Your task to perform on an android device: Open Amazon Image 0: 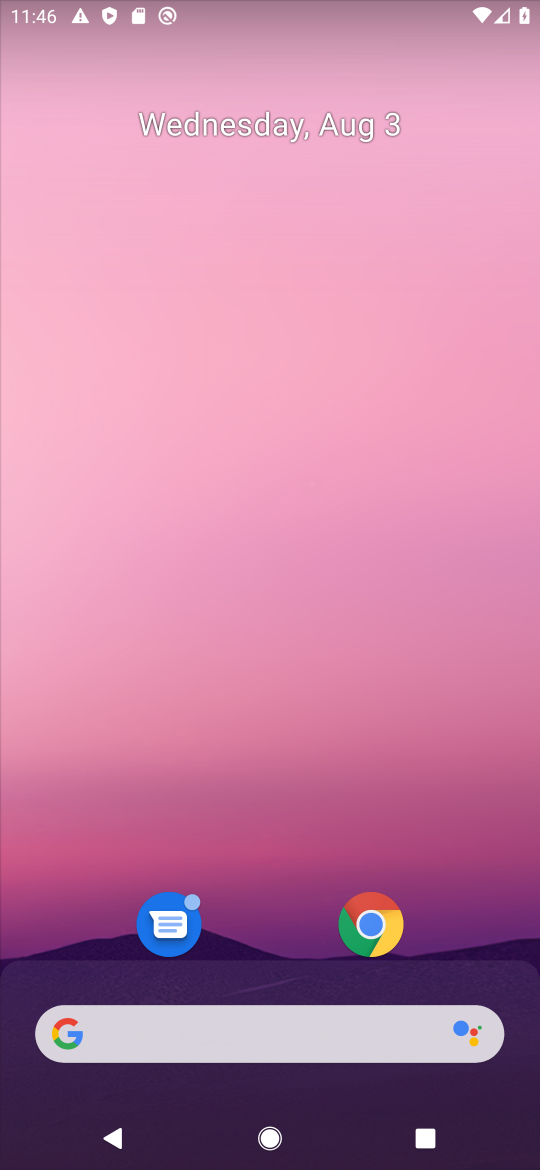
Step 0: click (381, 914)
Your task to perform on an android device: Open Amazon Image 1: 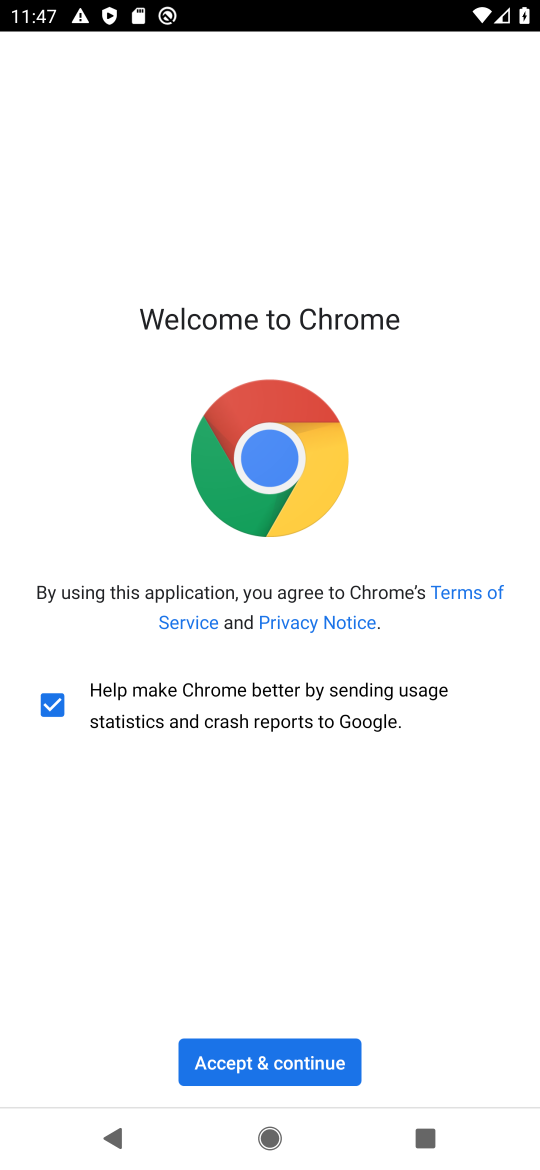
Step 1: click (285, 1062)
Your task to perform on an android device: Open Amazon Image 2: 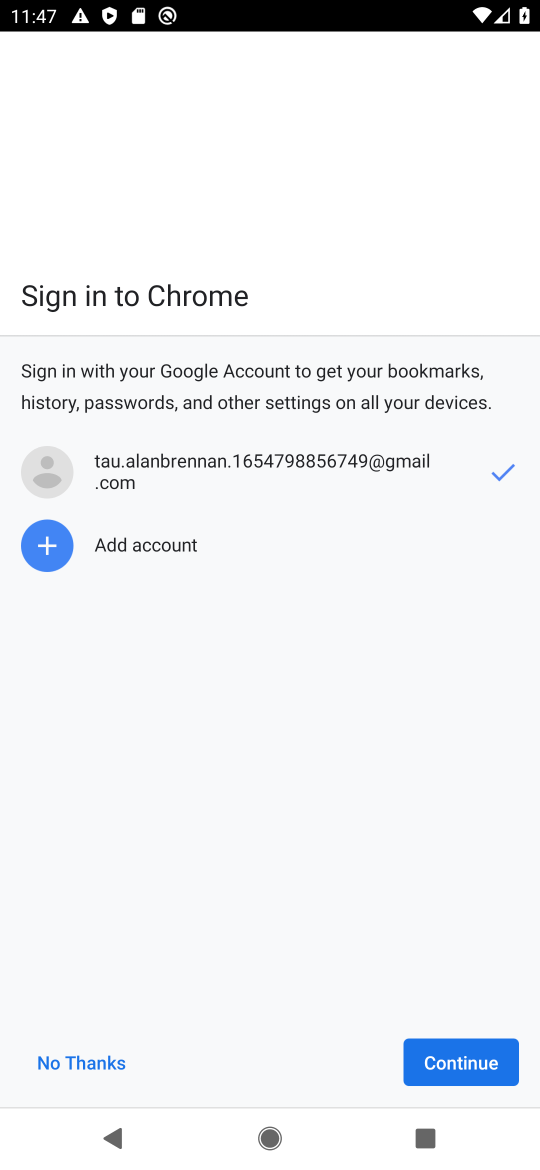
Step 2: click (444, 1059)
Your task to perform on an android device: Open Amazon Image 3: 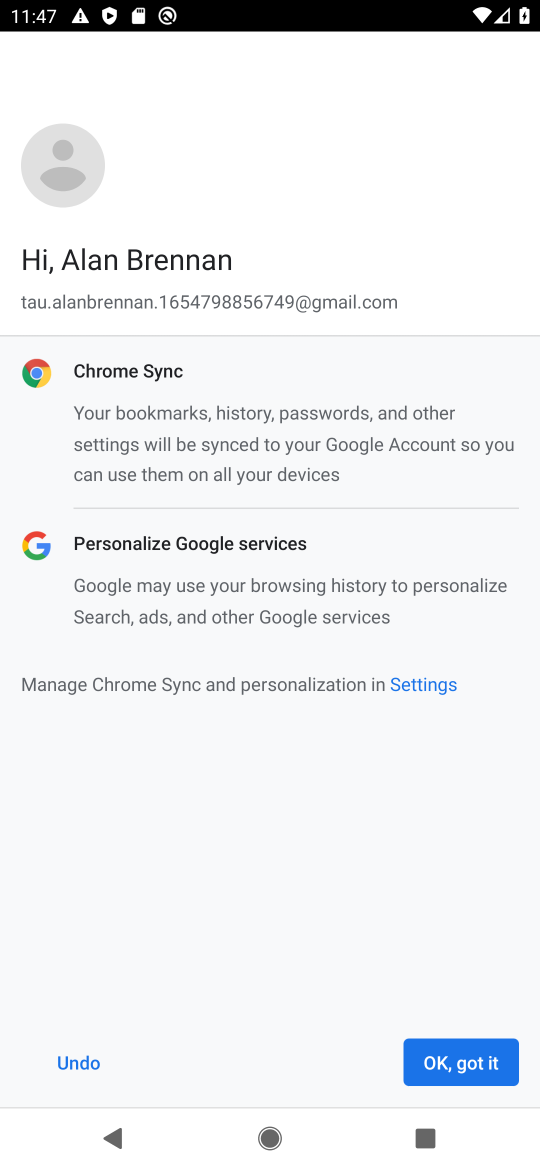
Step 3: click (444, 1059)
Your task to perform on an android device: Open Amazon Image 4: 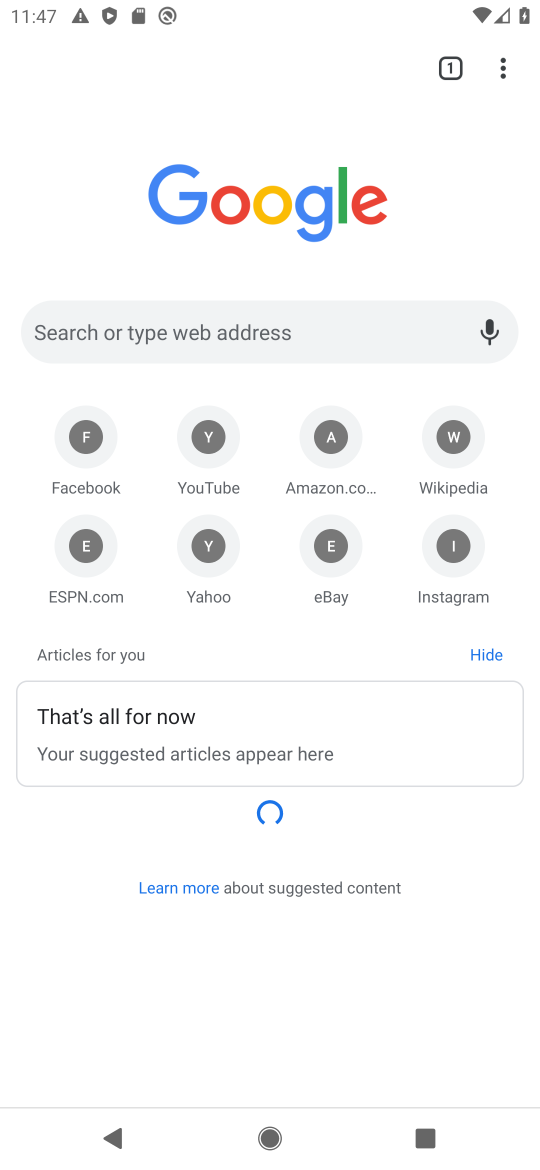
Step 4: click (337, 453)
Your task to perform on an android device: Open Amazon Image 5: 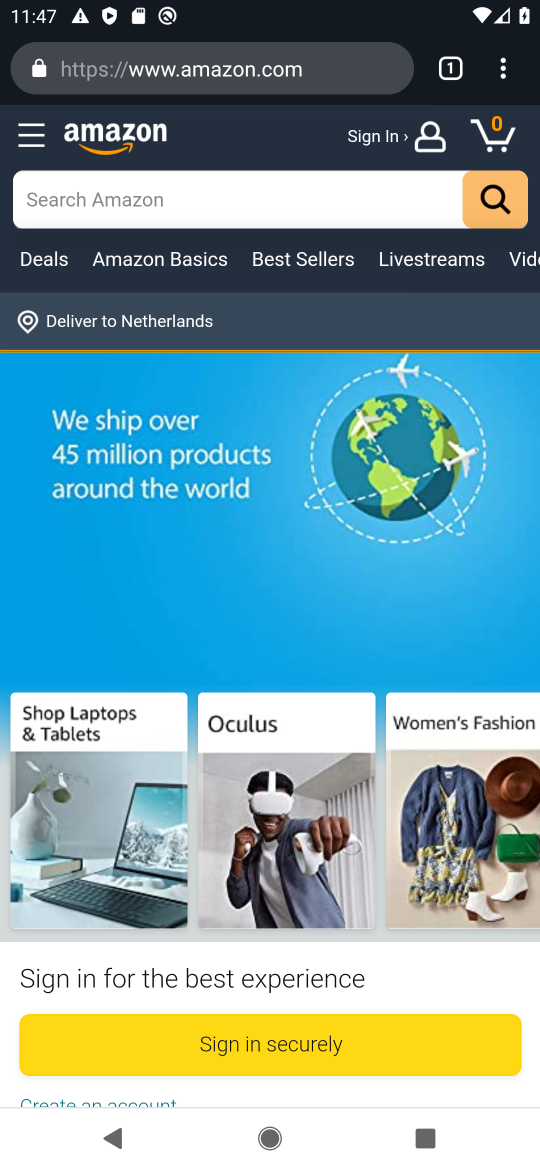
Step 5: task complete